Your task to perform on an android device: Open Google Maps and go to "Timeline" Image 0: 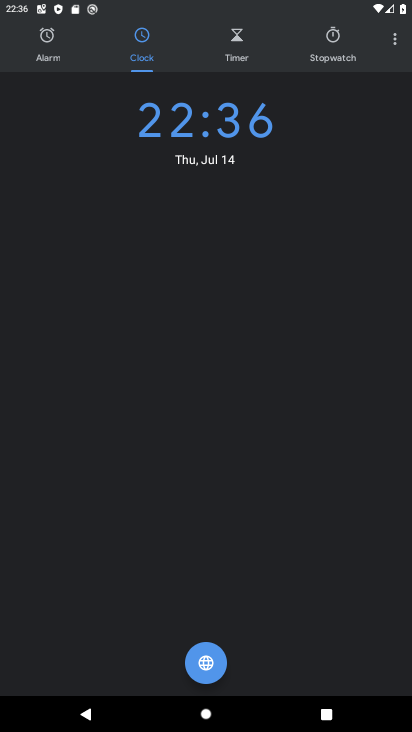
Step 0: press home button
Your task to perform on an android device: Open Google Maps and go to "Timeline" Image 1: 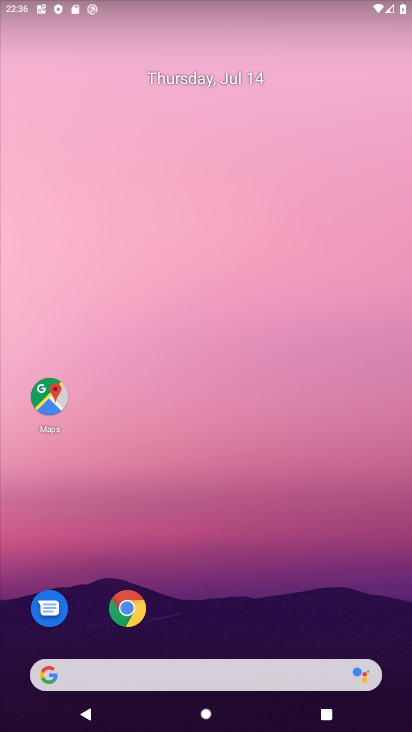
Step 1: click (132, 617)
Your task to perform on an android device: Open Google Maps and go to "Timeline" Image 2: 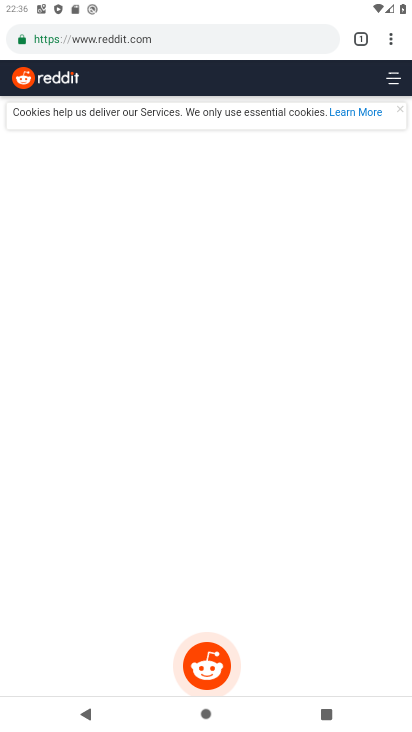
Step 2: press home button
Your task to perform on an android device: Open Google Maps and go to "Timeline" Image 3: 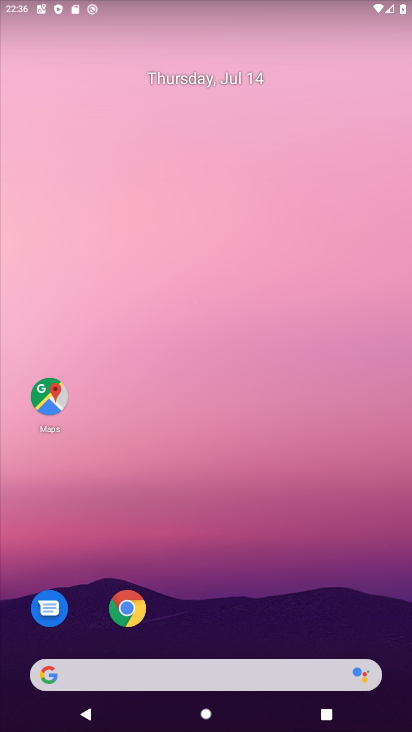
Step 3: click (52, 403)
Your task to perform on an android device: Open Google Maps and go to "Timeline" Image 4: 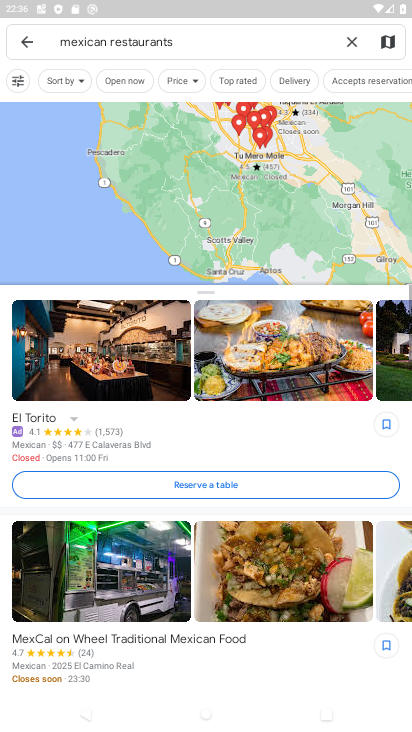
Step 4: click (350, 40)
Your task to perform on an android device: Open Google Maps and go to "Timeline" Image 5: 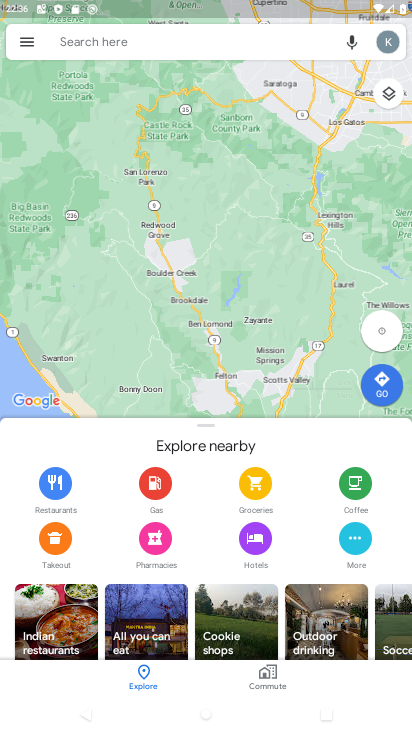
Step 5: click (14, 45)
Your task to perform on an android device: Open Google Maps and go to "Timeline" Image 6: 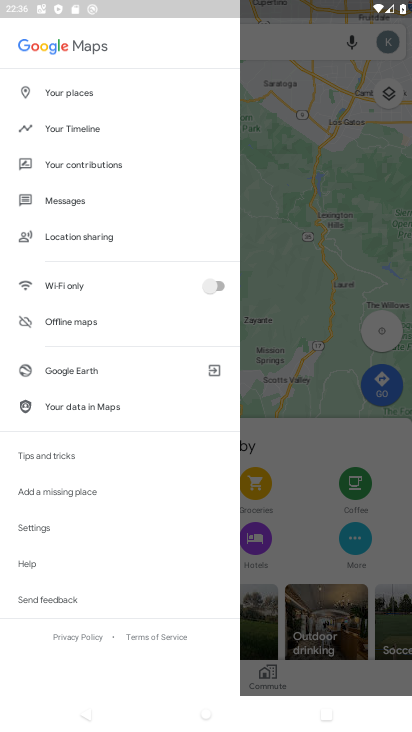
Step 6: click (65, 131)
Your task to perform on an android device: Open Google Maps and go to "Timeline" Image 7: 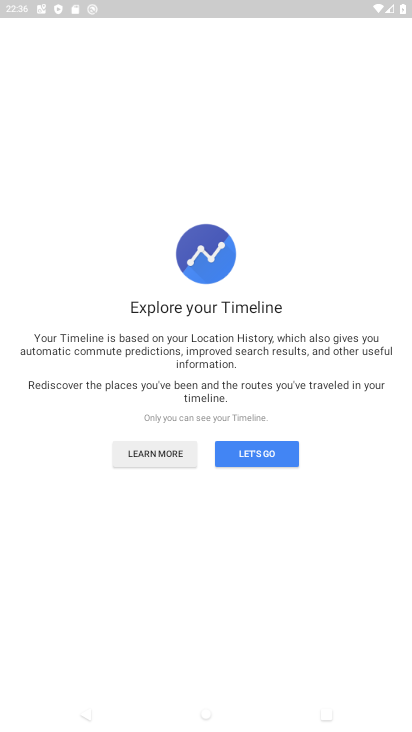
Step 7: click (263, 449)
Your task to perform on an android device: Open Google Maps and go to "Timeline" Image 8: 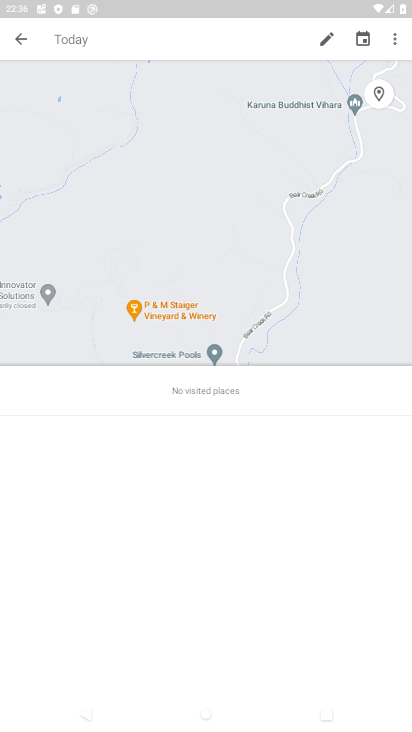
Step 8: task complete